Your task to perform on an android device: What's the weather going to be this weekend? Image 0: 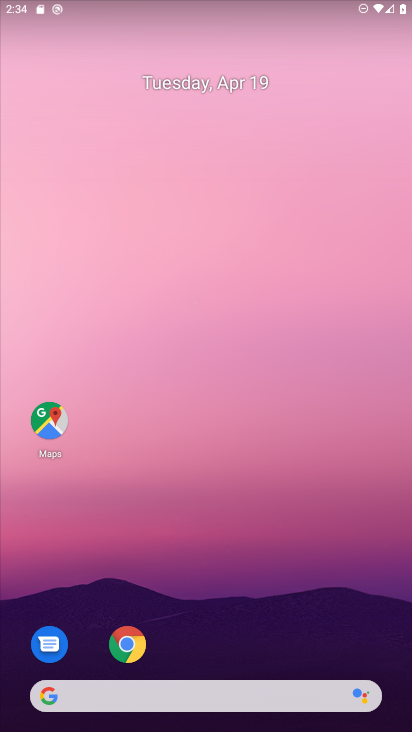
Step 0: drag from (223, 600) to (152, 134)
Your task to perform on an android device: What's the weather going to be this weekend? Image 1: 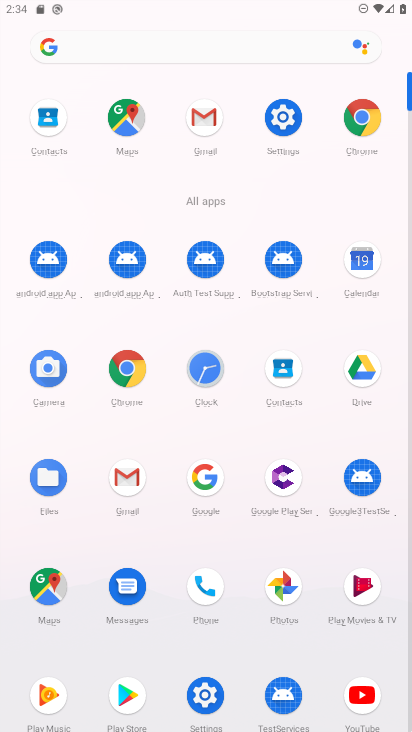
Step 1: click (353, 109)
Your task to perform on an android device: What's the weather going to be this weekend? Image 2: 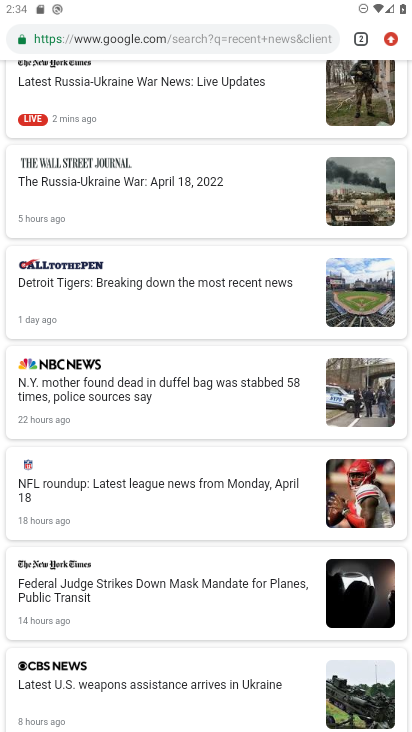
Step 2: click (362, 41)
Your task to perform on an android device: What's the weather going to be this weekend? Image 3: 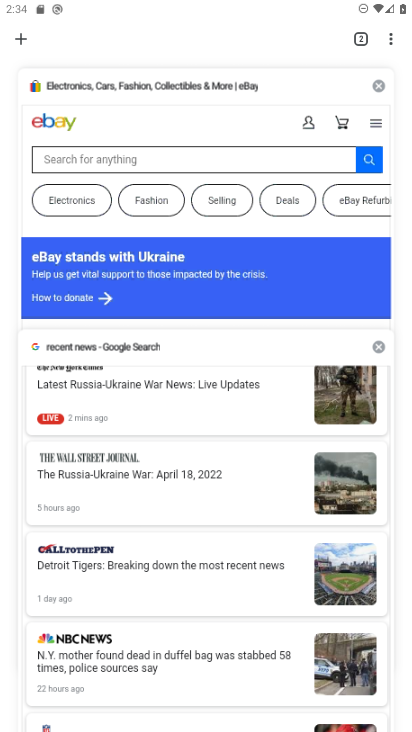
Step 3: click (19, 33)
Your task to perform on an android device: What's the weather going to be this weekend? Image 4: 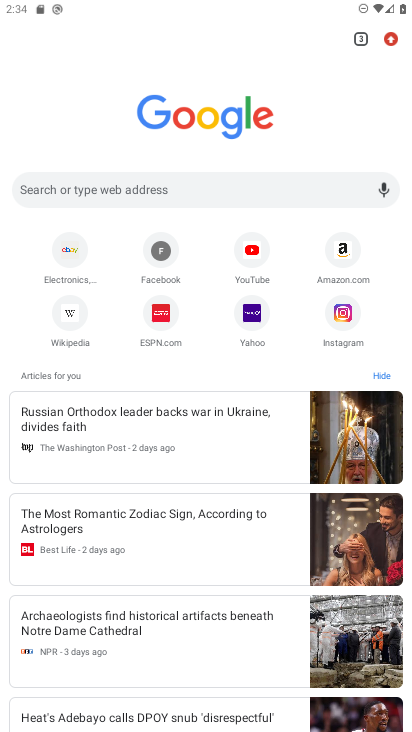
Step 4: click (134, 192)
Your task to perform on an android device: What's the weather going to be this weekend? Image 5: 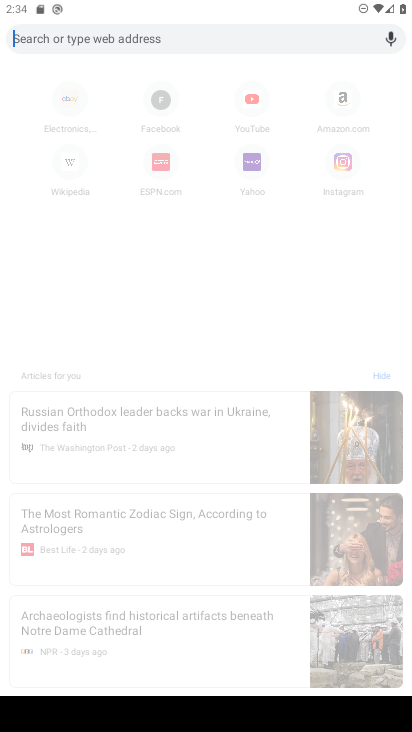
Step 5: type "weekend weather"
Your task to perform on an android device: What's the weather going to be this weekend? Image 6: 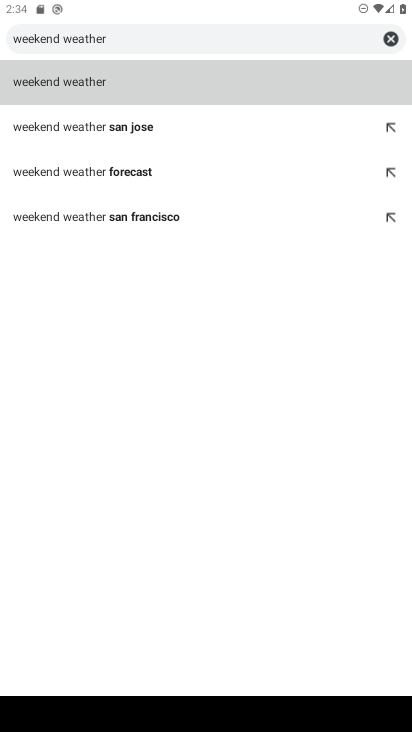
Step 6: click (83, 88)
Your task to perform on an android device: What's the weather going to be this weekend? Image 7: 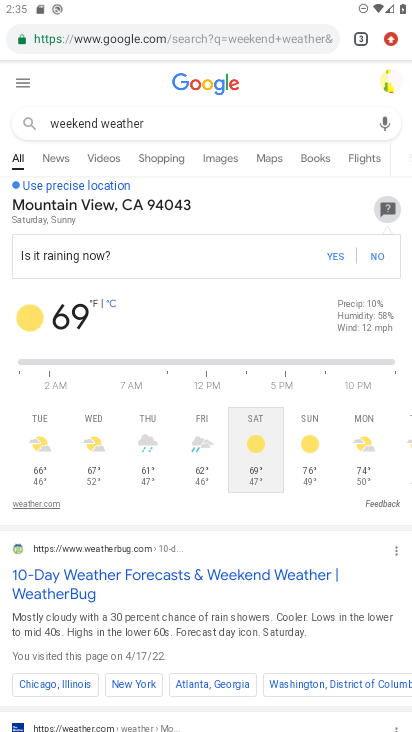
Step 7: task complete